Your task to perform on an android device: Open calendar and show me the third week of next month Image 0: 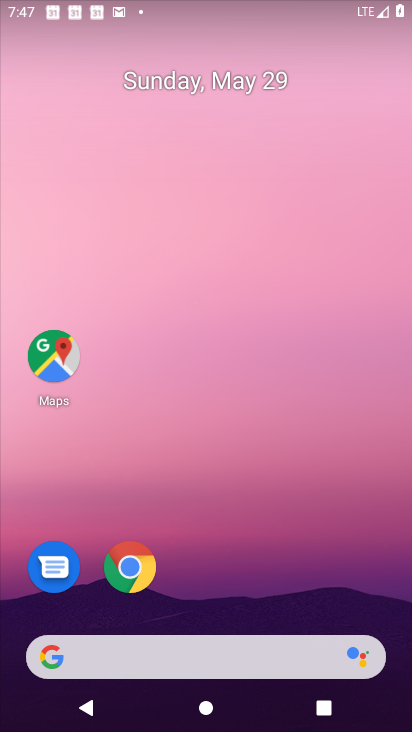
Step 0: drag from (250, 563) to (250, 218)
Your task to perform on an android device: Open calendar and show me the third week of next month Image 1: 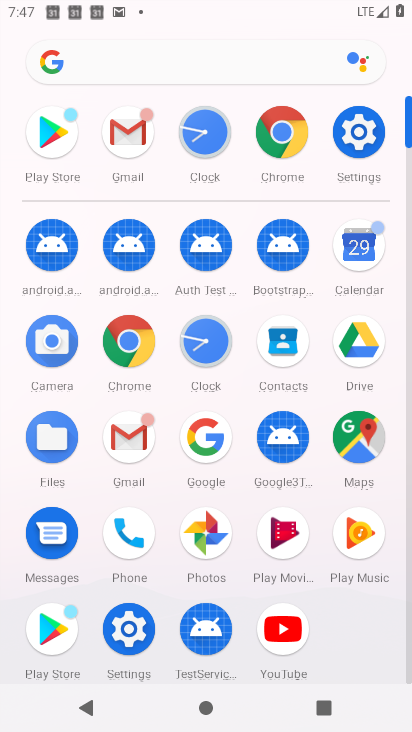
Step 1: click (345, 232)
Your task to perform on an android device: Open calendar and show me the third week of next month Image 2: 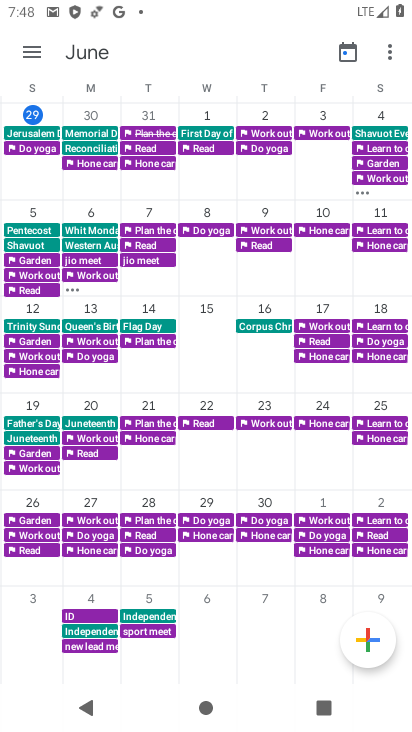
Step 2: task complete